Your task to perform on an android device: delete location history Image 0: 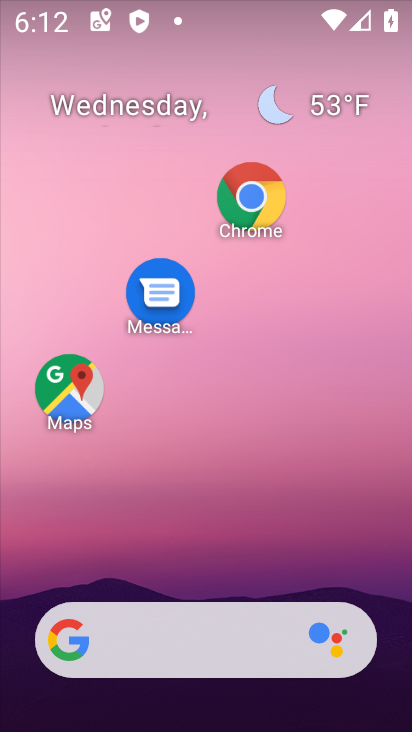
Step 0: drag from (199, 586) to (177, 92)
Your task to perform on an android device: delete location history Image 1: 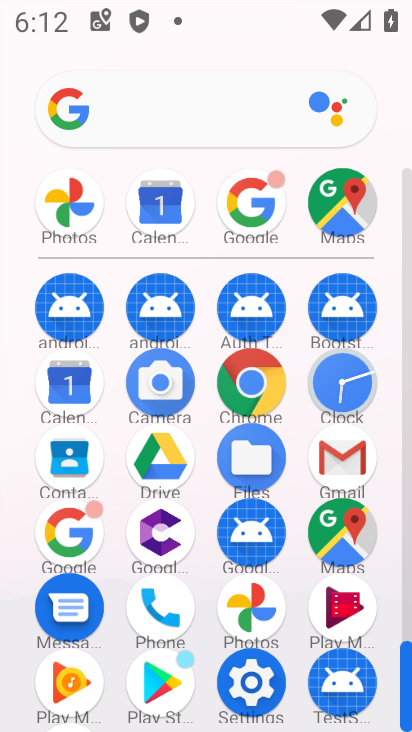
Step 1: click (352, 210)
Your task to perform on an android device: delete location history Image 2: 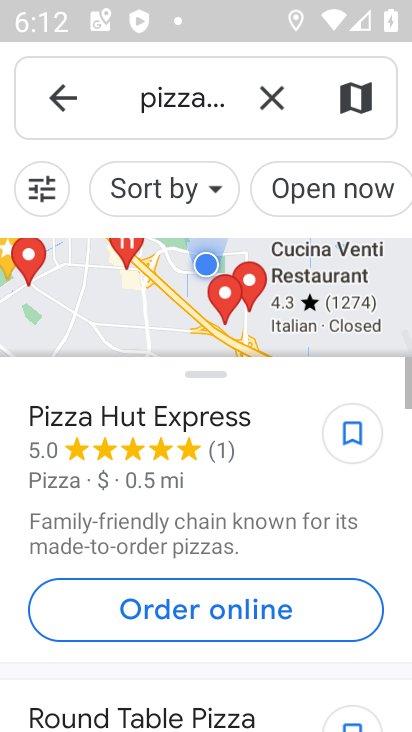
Step 2: click (68, 105)
Your task to perform on an android device: delete location history Image 3: 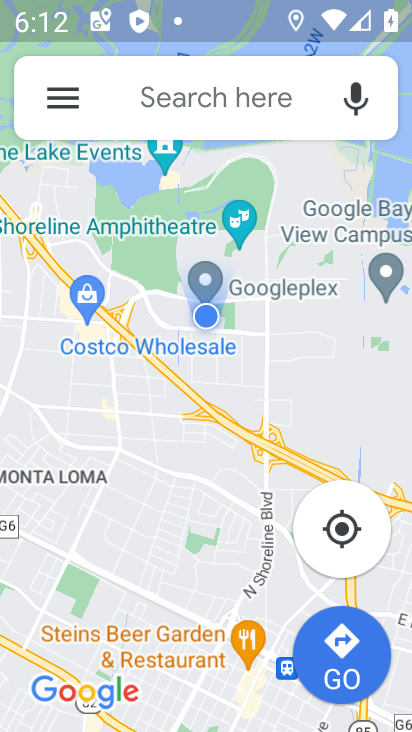
Step 3: click (68, 105)
Your task to perform on an android device: delete location history Image 4: 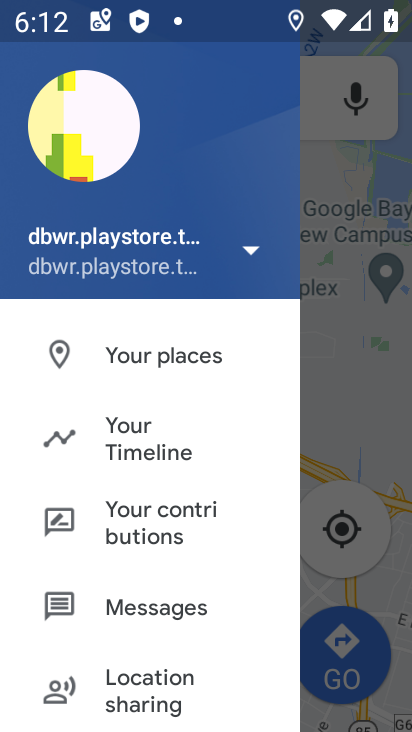
Step 4: click (149, 450)
Your task to perform on an android device: delete location history Image 5: 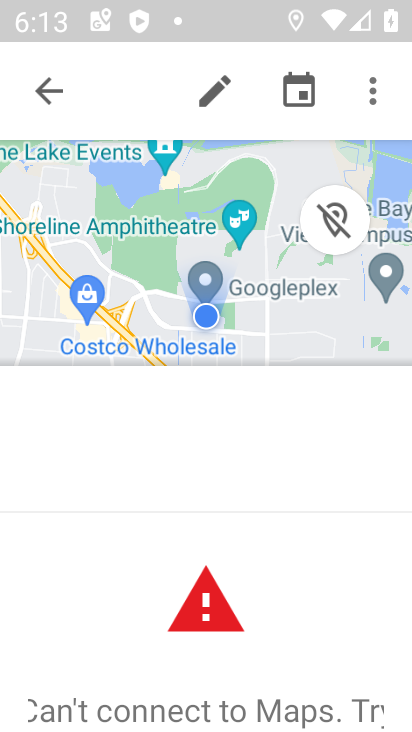
Step 5: click (366, 94)
Your task to perform on an android device: delete location history Image 6: 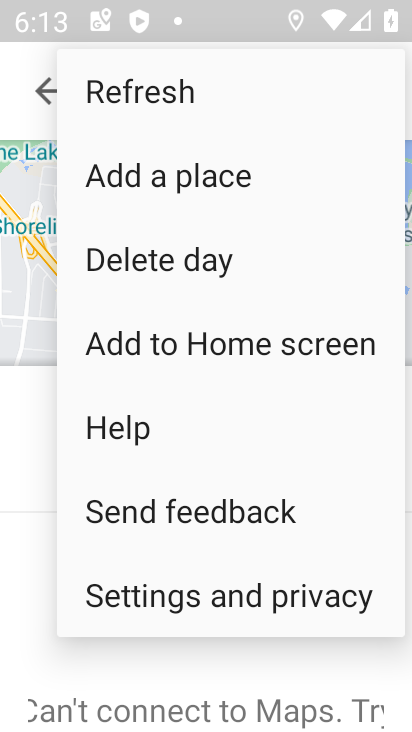
Step 6: click (166, 597)
Your task to perform on an android device: delete location history Image 7: 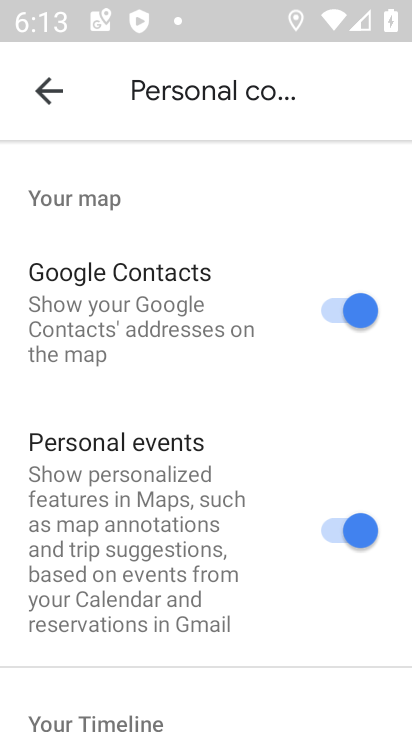
Step 7: drag from (205, 639) to (274, 310)
Your task to perform on an android device: delete location history Image 8: 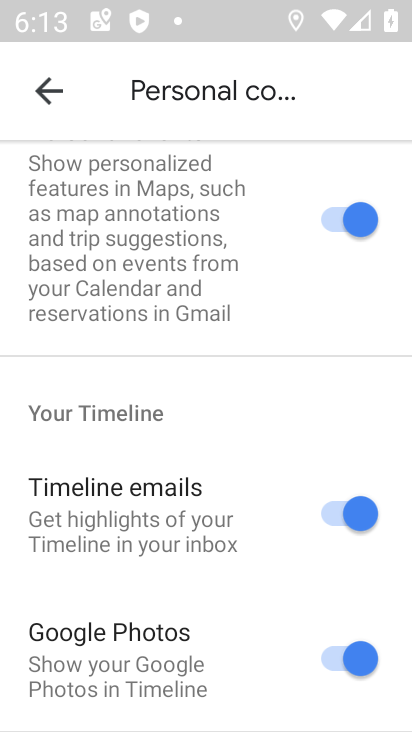
Step 8: drag from (198, 667) to (221, 345)
Your task to perform on an android device: delete location history Image 9: 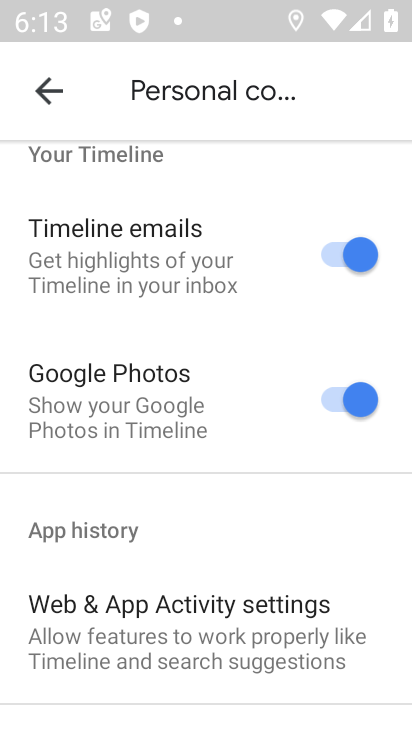
Step 9: drag from (207, 636) to (206, 258)
Your task to perform on an android device: delete location history Image 10: 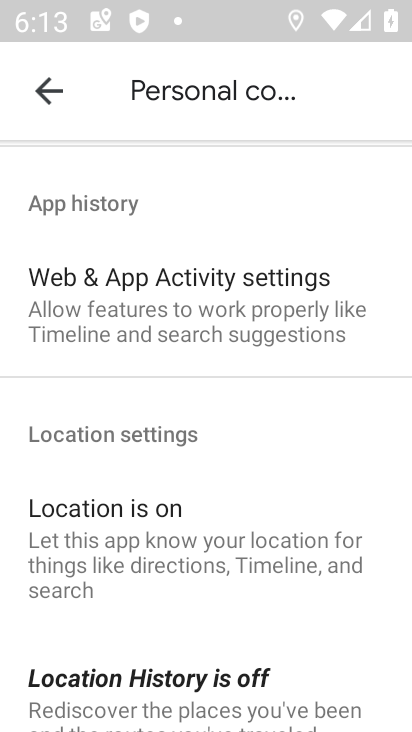
Step 10: drag from (185, 614) to (239, 356)
Your task to perform on an android device: delete location history Image 11: 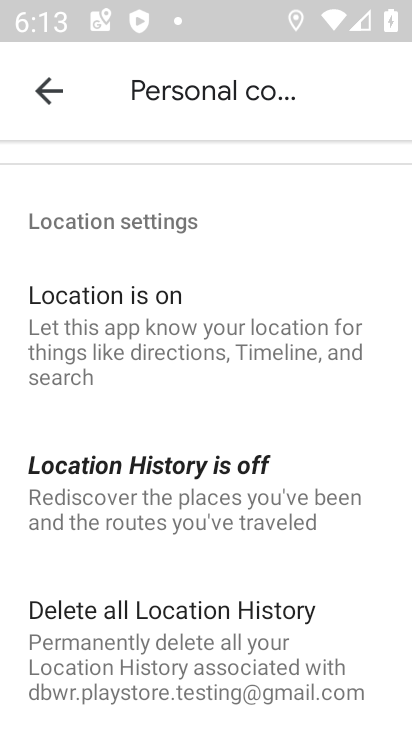
Step 11: click (156, 655)
Your task to perform on an android device: delete location history Image 12: 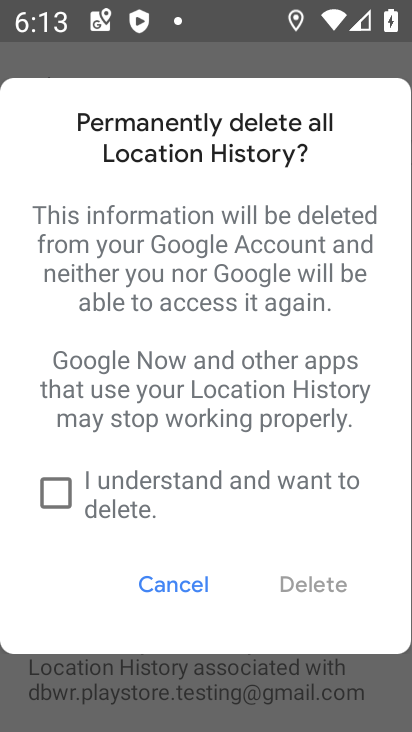
Step 12: click (61, 486)
Your task to perform on an android device: delete location history Image 13: 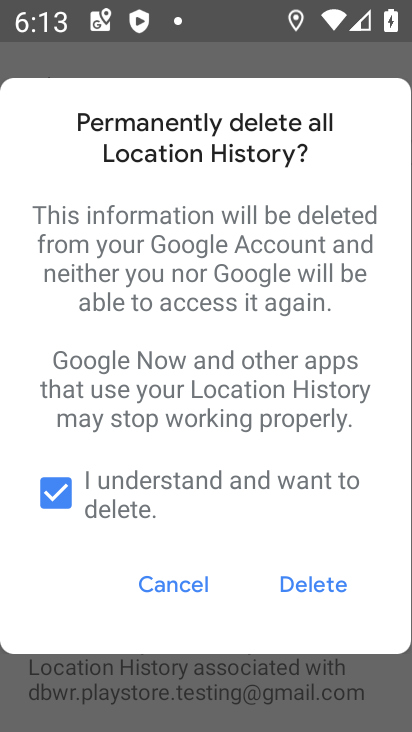
Step 13: click (320, 582)
Your task to perform on an android device: delete location history Image 14: 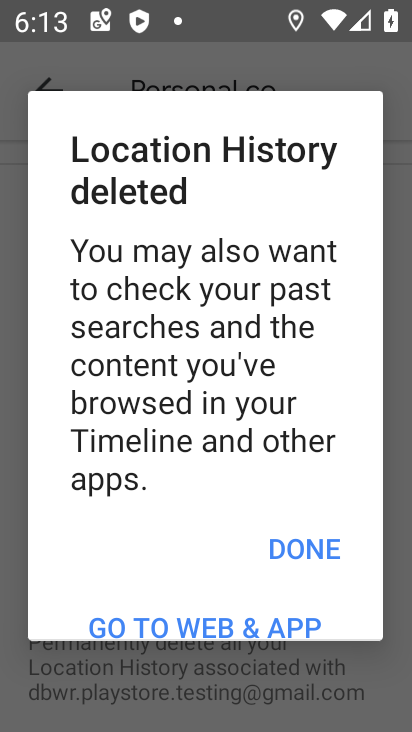
Step 14: click (310, 550)
Your task to perform on an android device: delete location history Image 15: 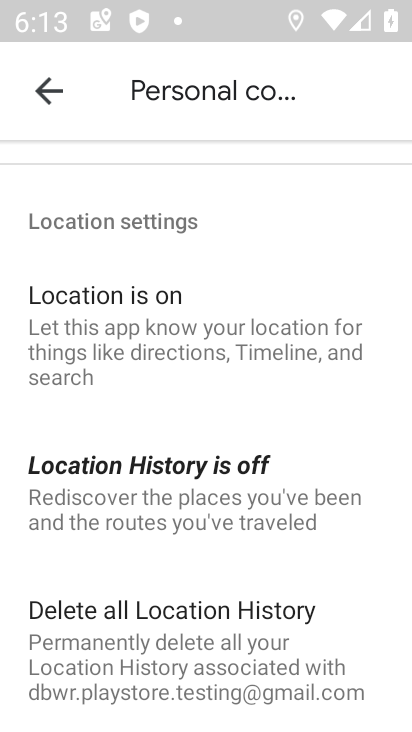
Step 15: task complete